Your task to perform on an android device: change your default location settings in chrome Image 0: 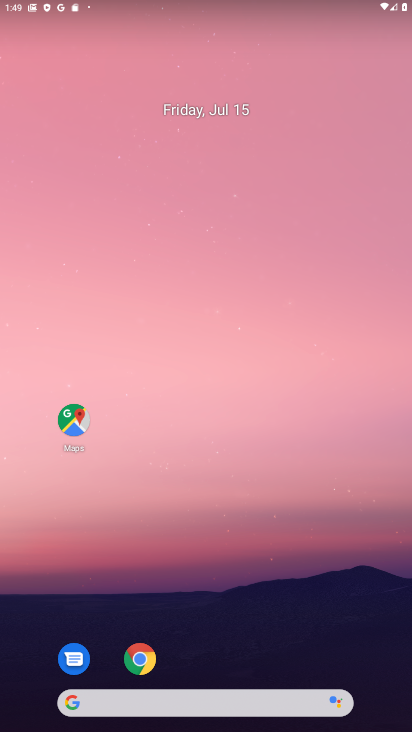
Step 0: drag from (302, 656) to (204, 78)
Your task to perform on an android device: change your default location settings in chrome Image 1: 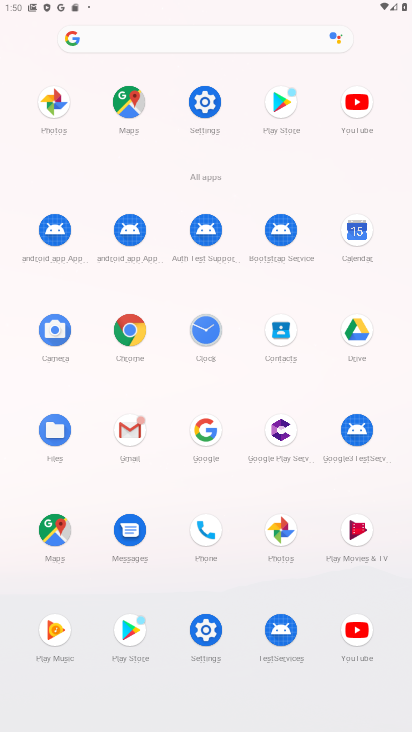
Step 1: click (132, 326)
Your task to perform on an android device: change your default location settings in chrome Image 2: 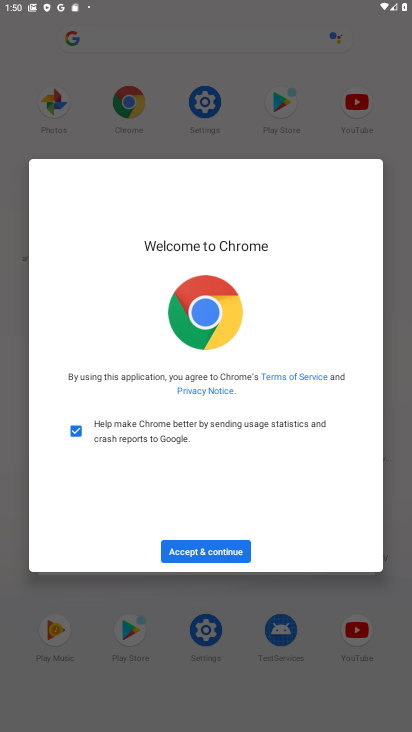
Step 2: click (199, 541)
Your task to perform on an android device: change your default location settings in chrome Image 3: 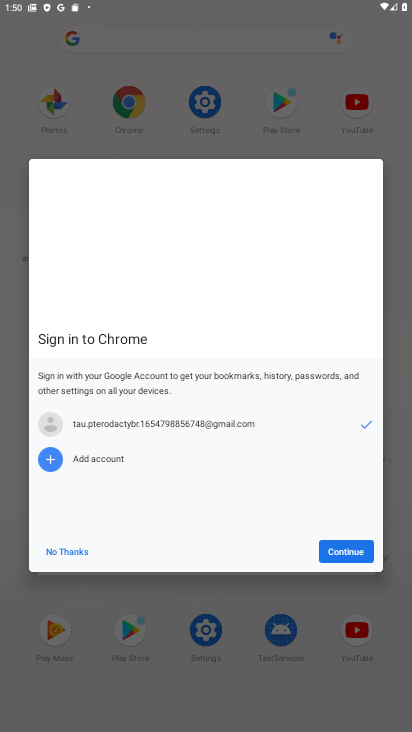
Step 3: click (341, 549)
Your task to perform on an android device: change your default location settings in chrome Image 4: 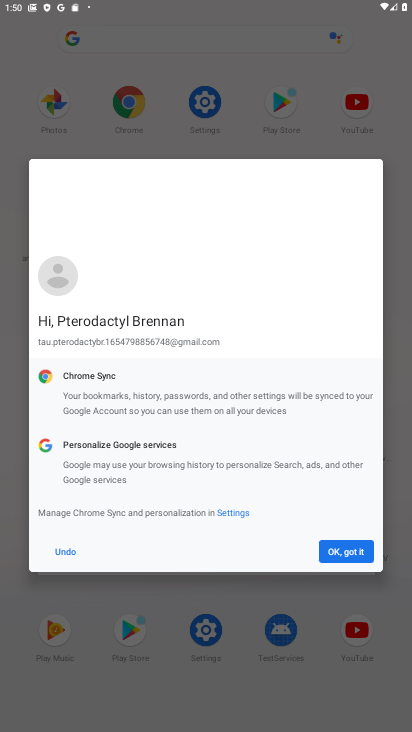
Step 4: click (341, 549)
Your task to perform on an android device: change your default location settings in chrome Image 5: 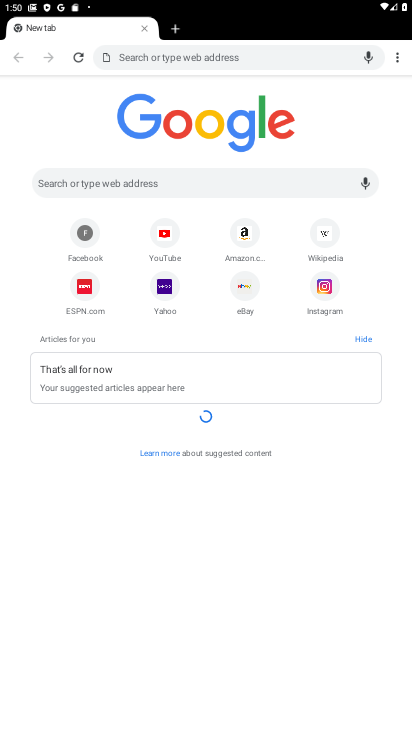
Step 5: click (398, 62)
Your task to perform on an android device: change your default location settings in chrome Image 6: 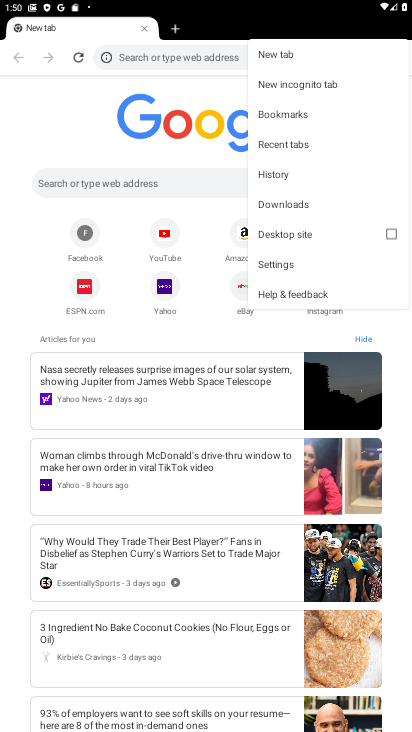
Step 6: click (305, 261)
Your task to perform on an android device: change your default location settings in chrome Image 7: 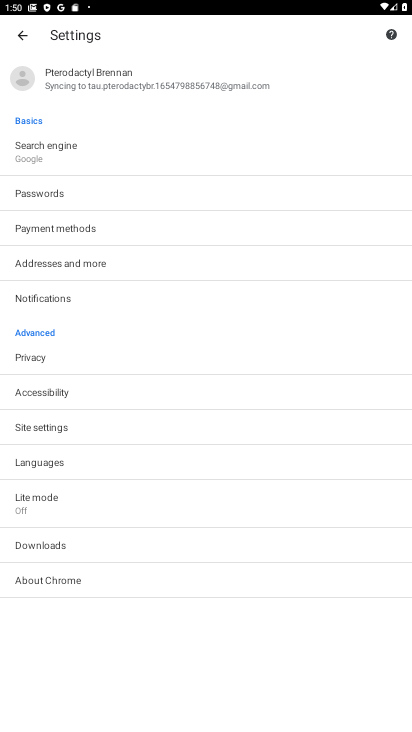
Step 7: click (157, 427)
Your task to perform on an android device: change your default location settings in chrome Image 8: 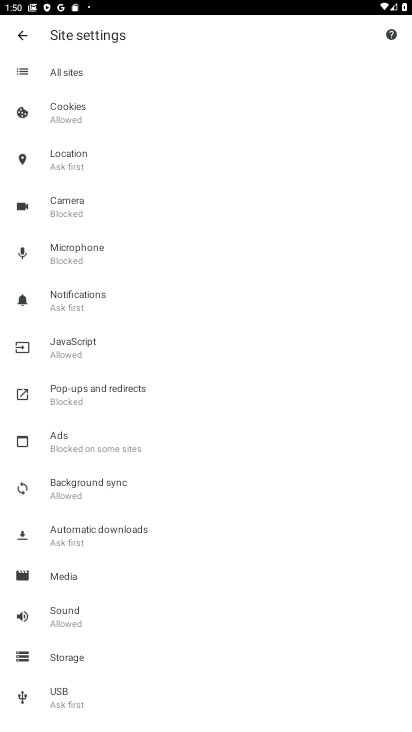
Step 8: click (146, 147)
Your task to perform on an android device: change your default location settings in chrome Image 9: 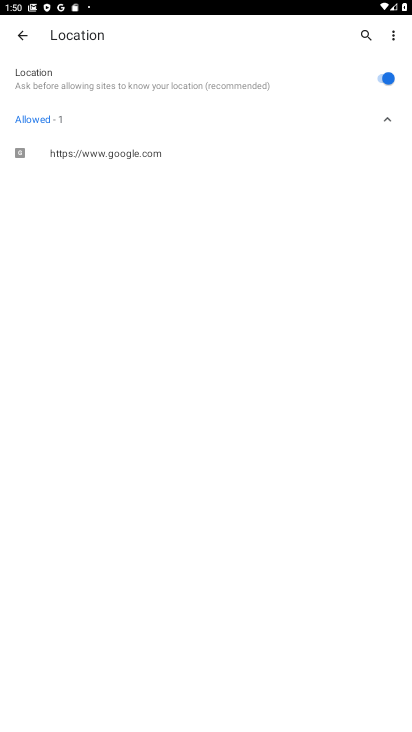
Step 9: task complete